Your task to perform on an android device: Open Google Maps and go to "Timeline" Image 0: 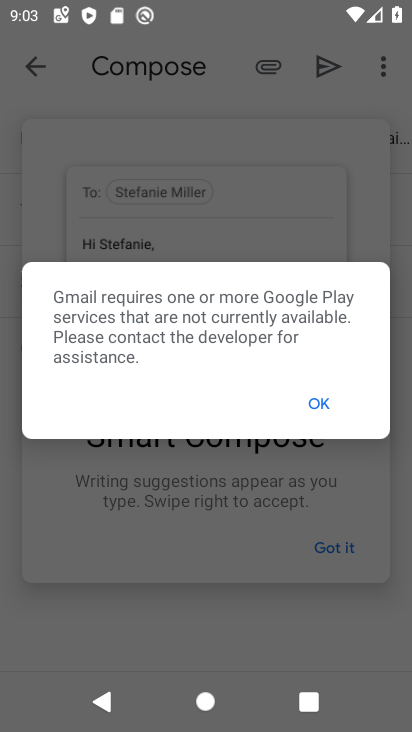
Step 0: press home button
Your task to perform on an android device: Open Google Maps and go to "Timeline" Image 1: 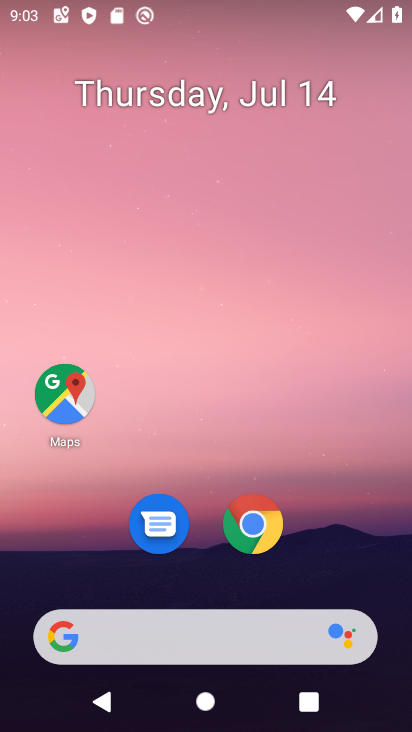
Step 1: drag from (308, 503) to (271, 0)
Your task to perform on an android device: Open Google Maps and go to "Timeline" Image 2: 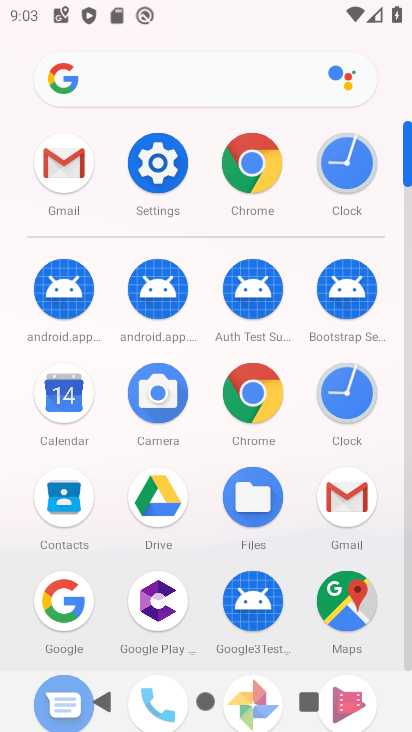
Step 2: click (59, 595)
Your task to perform on an android device: Open Google Maps and go to "Timeline" Image 3: 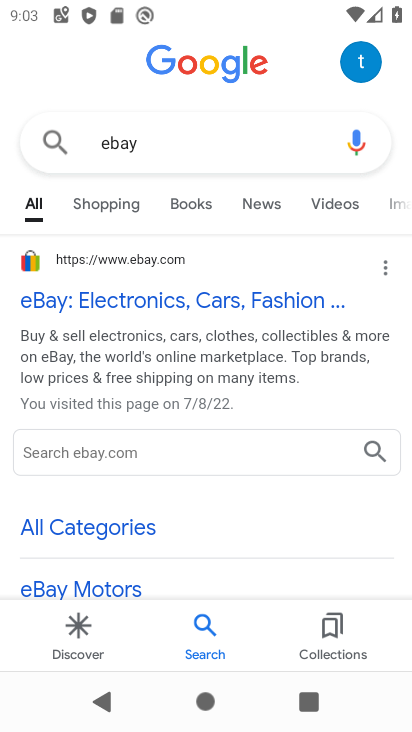
Step 3: press back button
Your task to perform on an android device: Open Google Maps and go to "Timeline" Image 4: 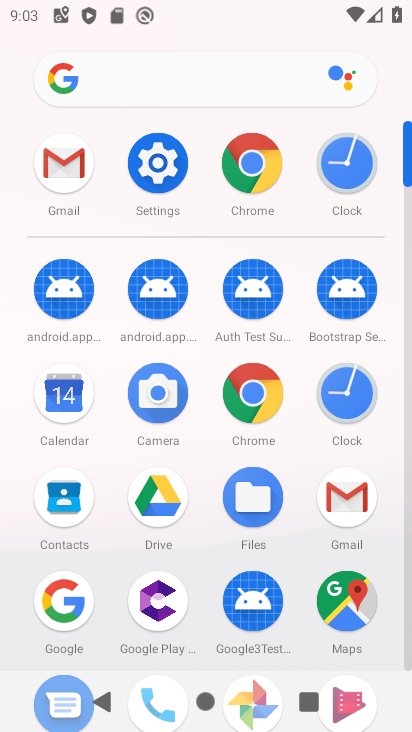
Step 4: click (348, 610)
Your task to perform on an android device: Open Google Maps and go to "Timeline" Image 5: 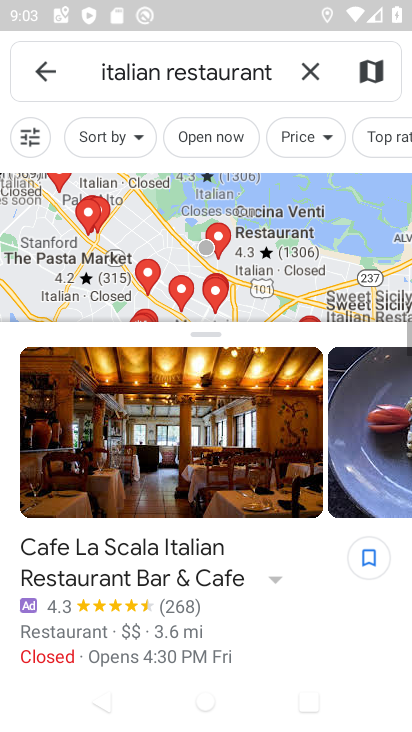
Step 5: click (39, 73)
Your task to perform on an android device: Open Google Maps and go to "Timeline" Image 6: 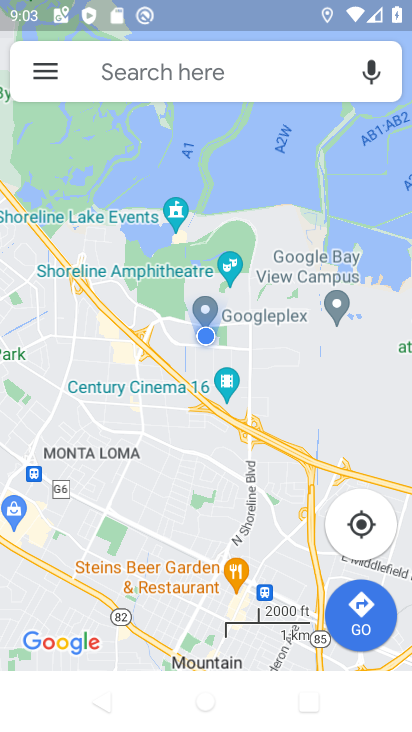
Step 6: click (47, 60)
Your task to perform on an android device: Open Google Maps and go to "Timeline" Image 7: 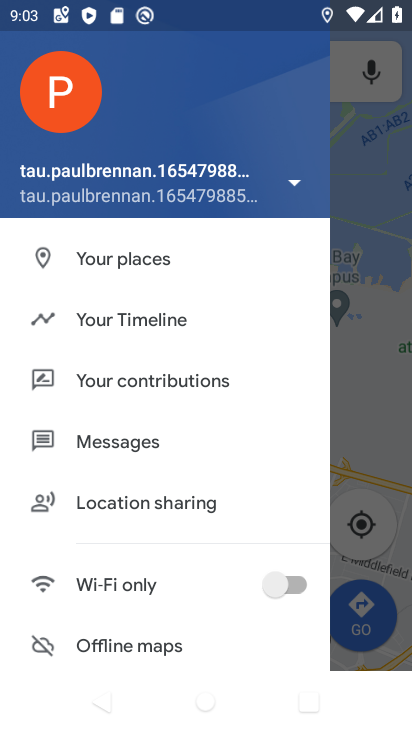
Step 7: click (149, 312)
Your task to perform on an android device: Open Google Maps and go to "Timeline" Image 8: 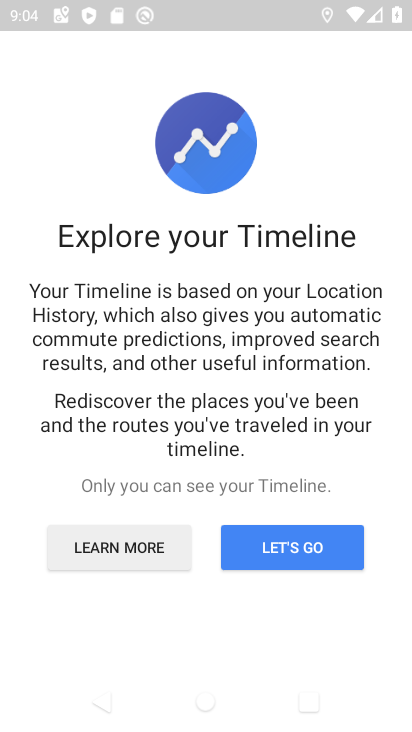
Step 8: click (295, 552)
Your task to perform on an android device: Open Google Maps and go to "Timeline" Image 9: 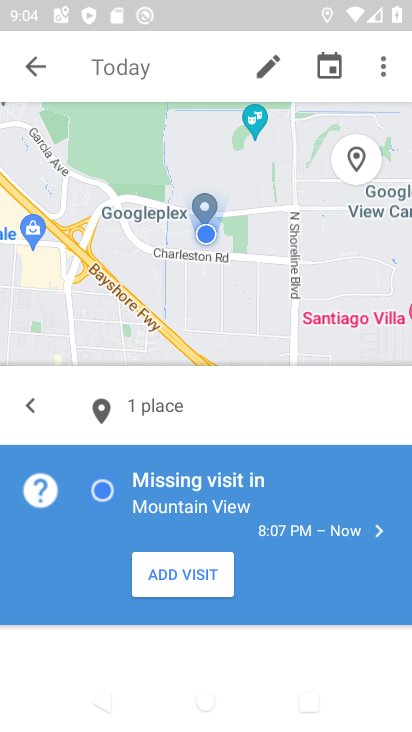
Step 9: task complete